Your task to perform on an android device: Clear the cart on target.com. Search for "dell xps" on target.com, select the first entry, add it to the cart, then select checkout. Image 0: 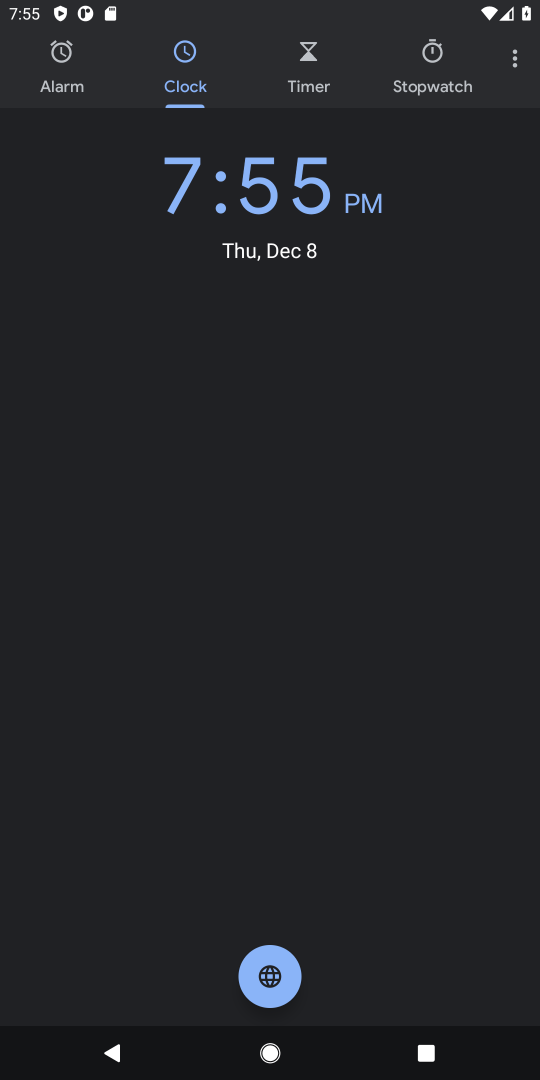
Step 0: press home button
Your task to perform on an android device: Clear the cart on target.com. Search for "dell xps" on target.com, select the first entry, add it to the cart, then select checkout. Image 1: 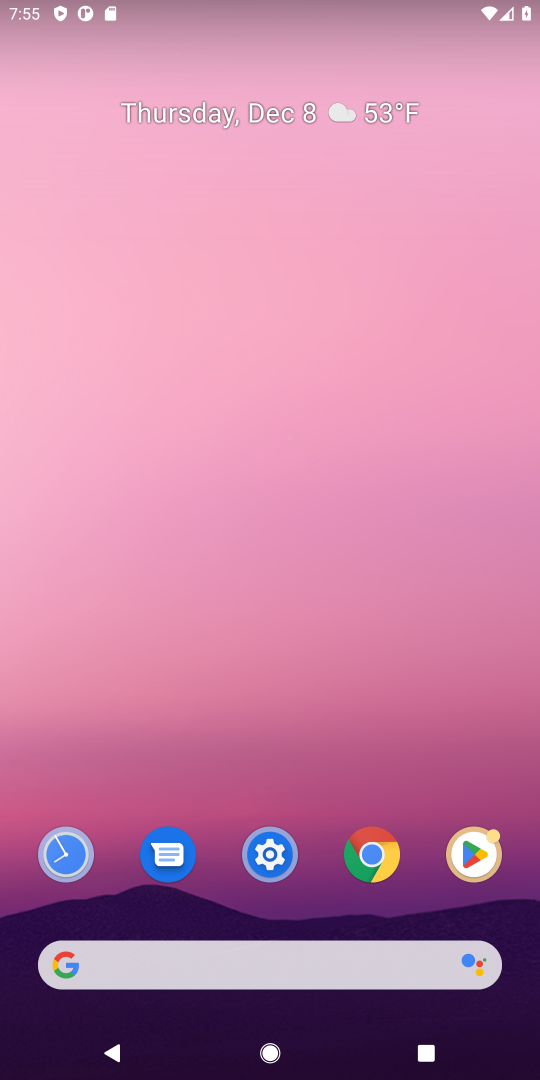
Step 1: click (101, 949)
Your task to perform on an android device: Clear the cart on target.com. Search for "dell xps" on target.com, select the first entry, add it to the cart, then select checkout. Image 2: 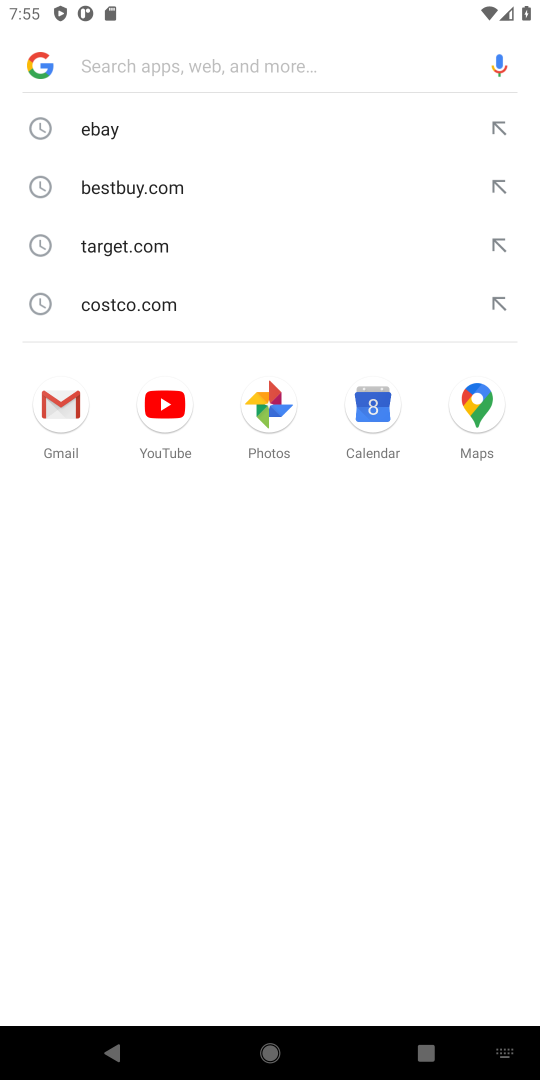
Step 2: type "target.com"
Your task to perform on an android device: Clear the cart on target.com. Search for "dell xps" on target.com, select the first entry, add it to the cart, then select checkout. Image 3: 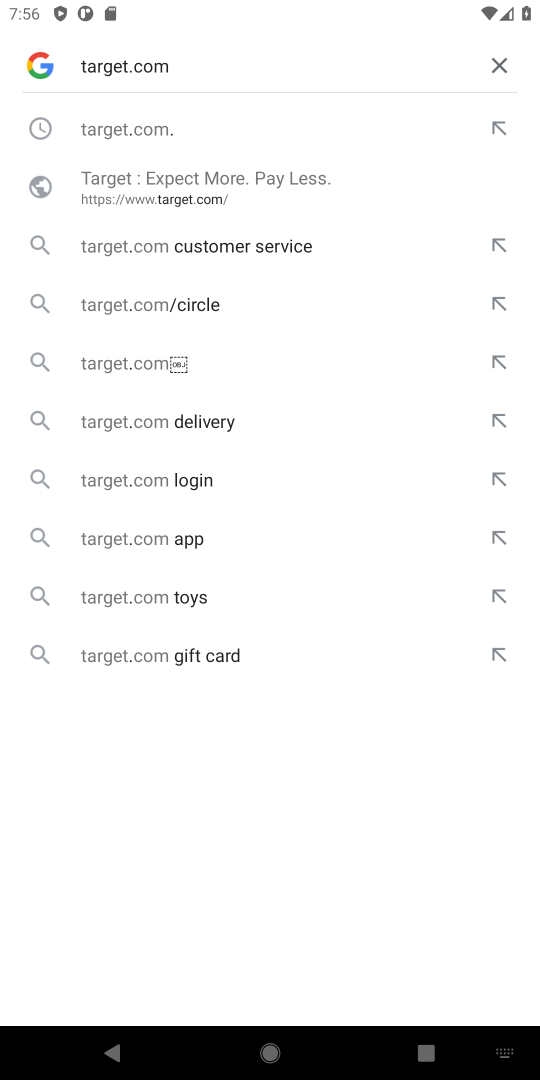
Step 3: press enter
Your task to perform on an android device: Clear the cart on target.com. Search for "dell xps" on target.com, select the first entry, add it to the cart, then select checkout. Image 4: 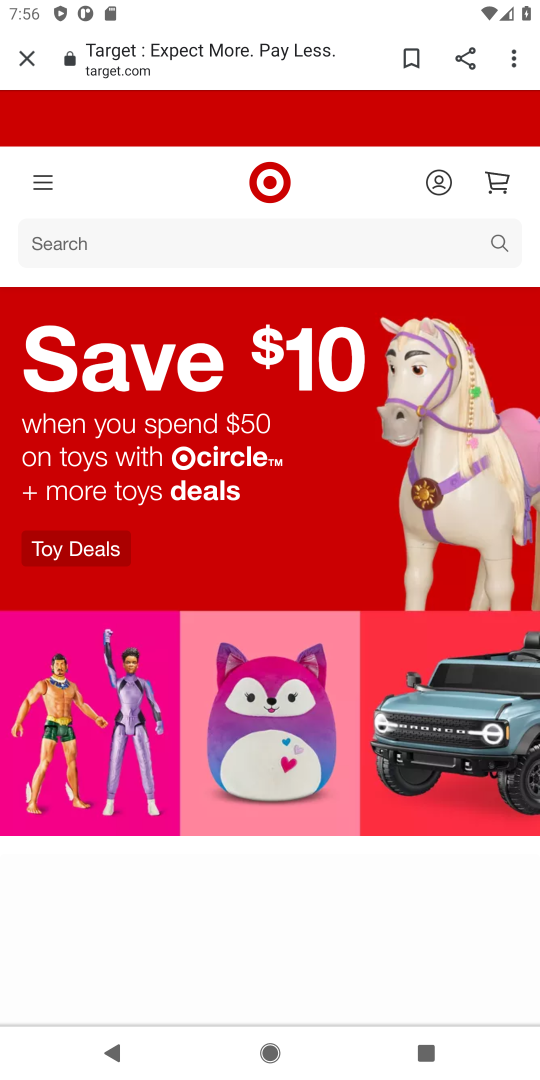
Step 4: click (494, 183)
Your task to perform on an android device: Clear the cart on target.com. Search for "dell xps" on target.com, select the first entry, add it to the cart, then select checkout. Image 5: 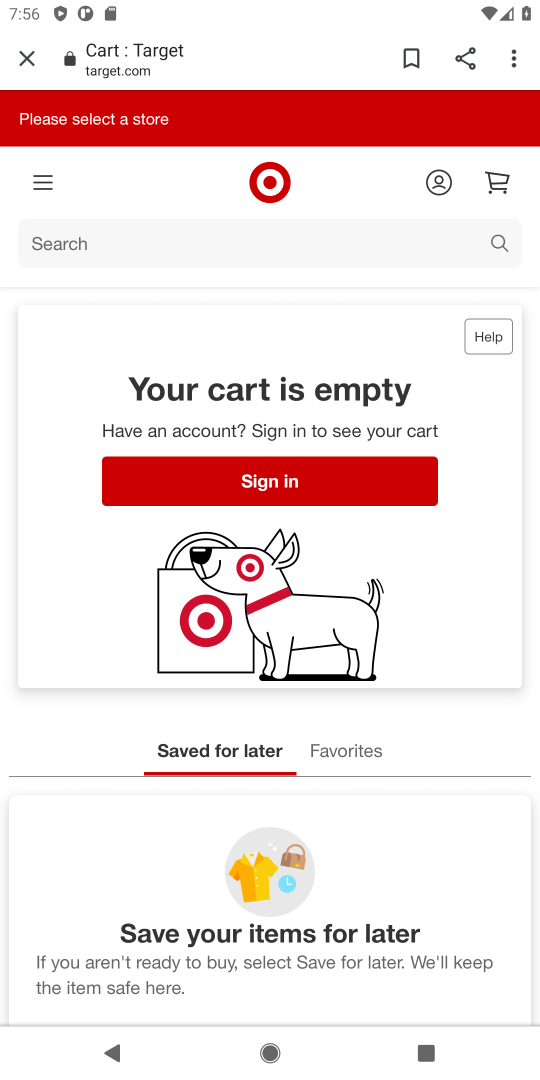
Step 5: click (81, 238)
Your task to perform on an android device: Clear the cart on target.com. Search for "dell xps" on target.com, select the first entry, add it to the cart, then select checkout. Image 6: 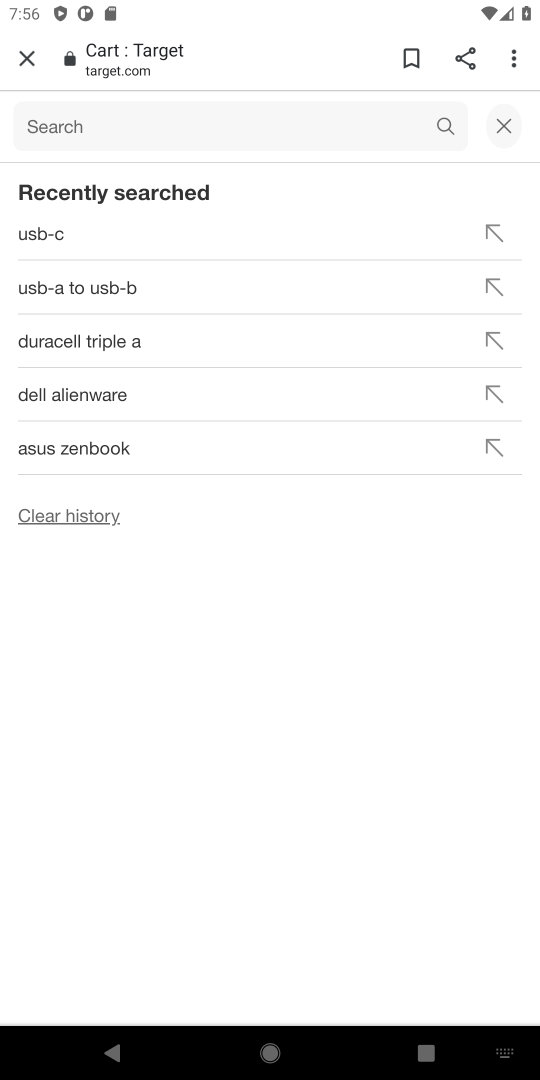
Step 6: press enter
Your task to perform on an android device: Clear the cart on target.com. Search for "dell xps" on target.com, select the first entry, add it to the cart, then select checkout. Image 7: 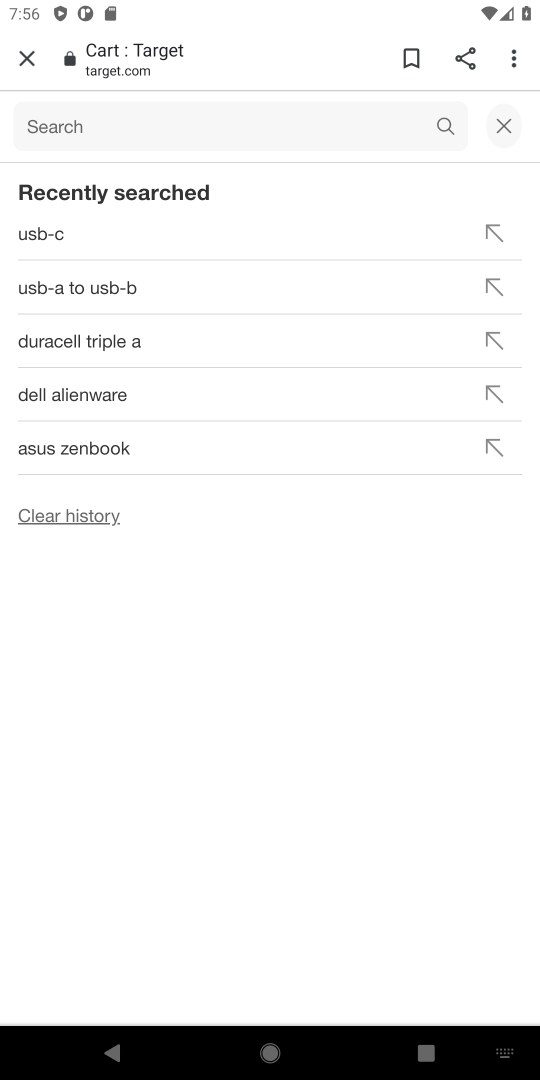
Step 7: type "dell xps"
Your task to perform on an android device: Clear the cart on target.com. Search for "dell xps" on target.com, select the first entry, add it to the cart, then select checkout. Image 8: 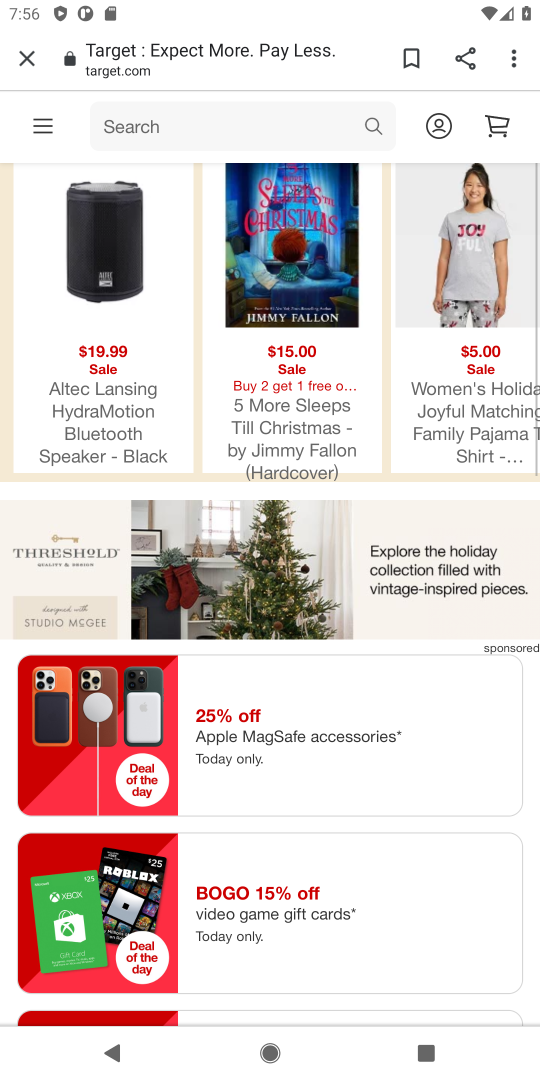
Step 8: task complete